Your task to perform on an android device: find which apps use the phone's location Image 0: 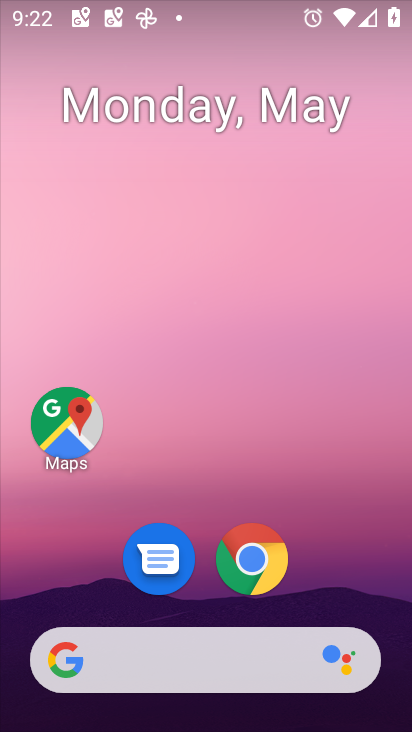
Step 0: drag from (367, 654) to (252, 104)
Your task to perform on an android device: find which apps use the phone's location Image 1: 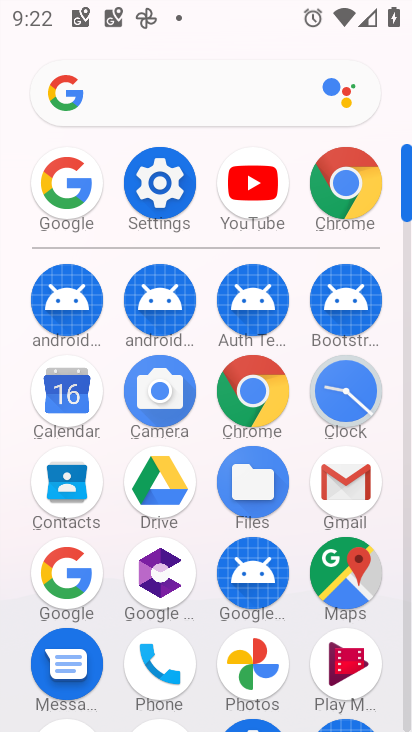
Step 1: click (166, 167)
Your task to perform on an android device: find which apps use the phone's location Image 2: 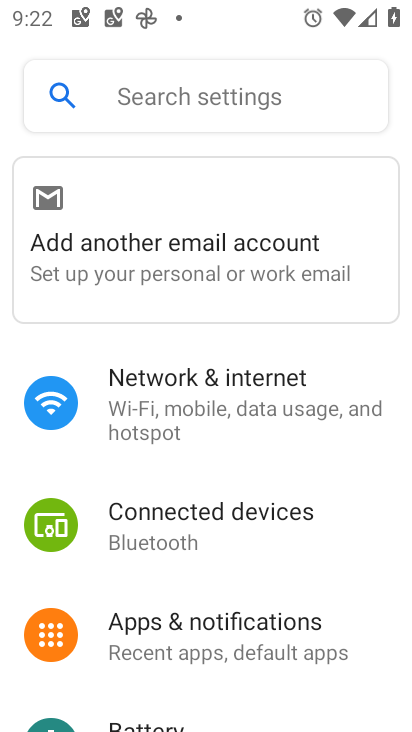
Step 2: drag from (198, 635) to (187, 271)
Your task to perform on an android device: find which apps use the phone's location Image 3: 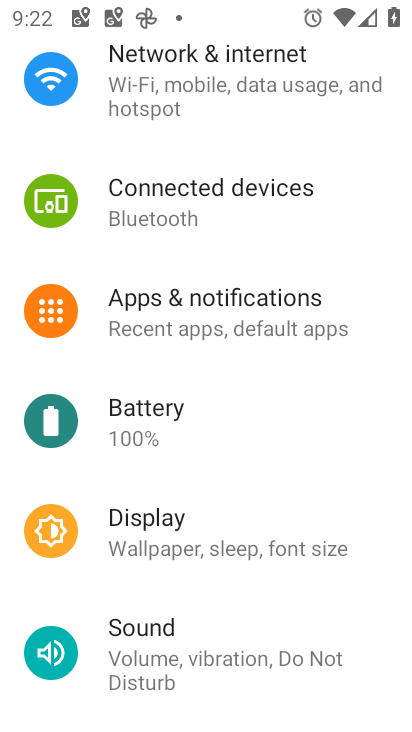
Step 3: drag from (181, 624) to (248, 178)
Your task to perform on an android device: find which apps use the phone's location Image 4: 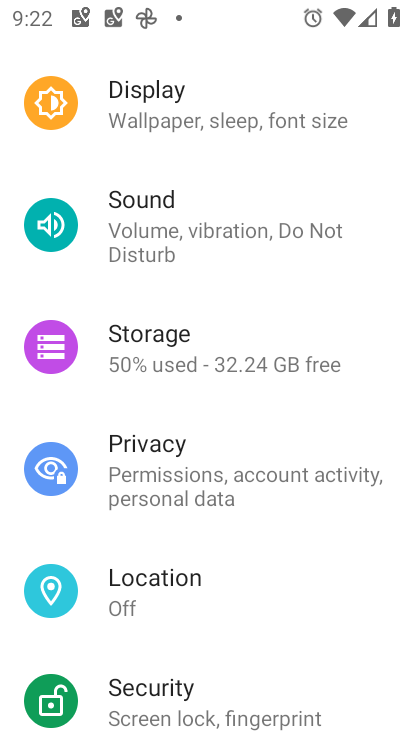
Step 4: click (146, 593)
Your task to perform on an android device: find which apps use the phone's location Image 5: 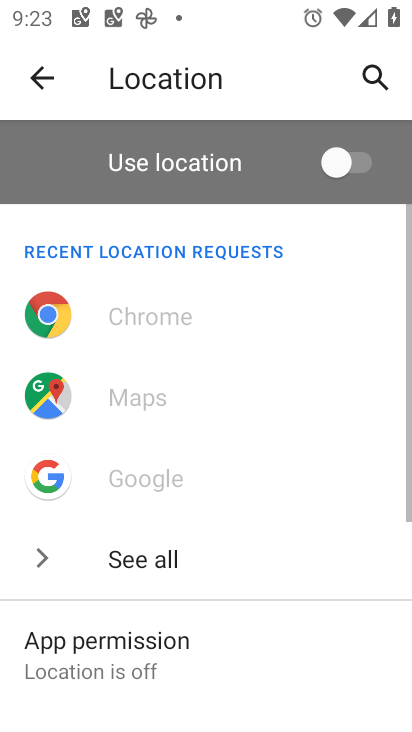
Step 5: drag from (135, 654) to (168, 170)
Your task to perform on an android device: find which apps use the phone's location Image 6: 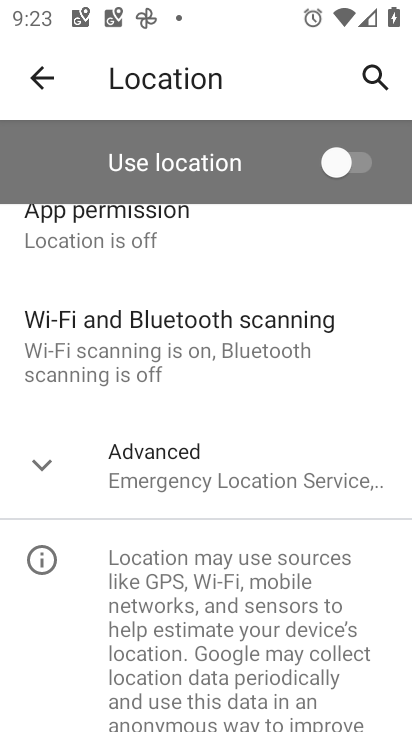
Step 6: click (64, 461)
Your task to perform on an android device: find which apps use the phone's location Image 7: 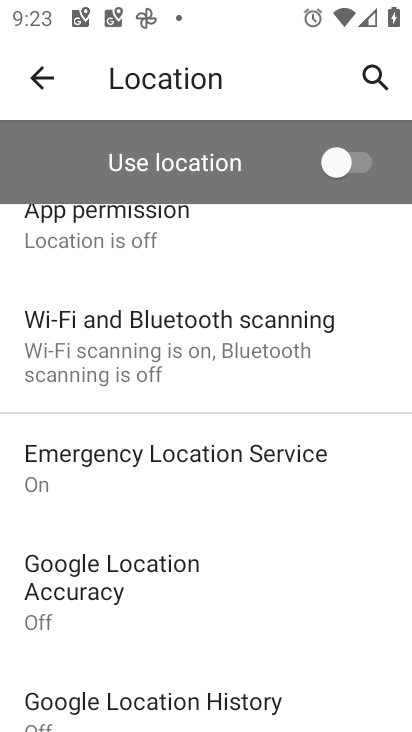
Step 7: click (198, 236)
Your task to perform on an android device: find which apps use the phone's location Image 8: 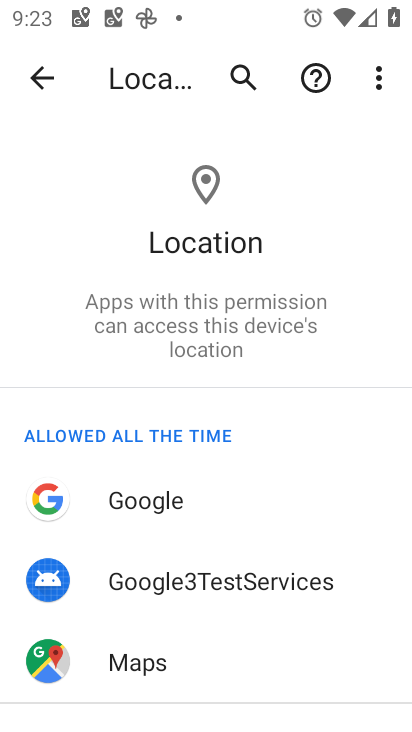
Step 8: drag from (186, 611) to (202, 156)
Your task to perform on an android device: find which apps use the phone's location Image 9: 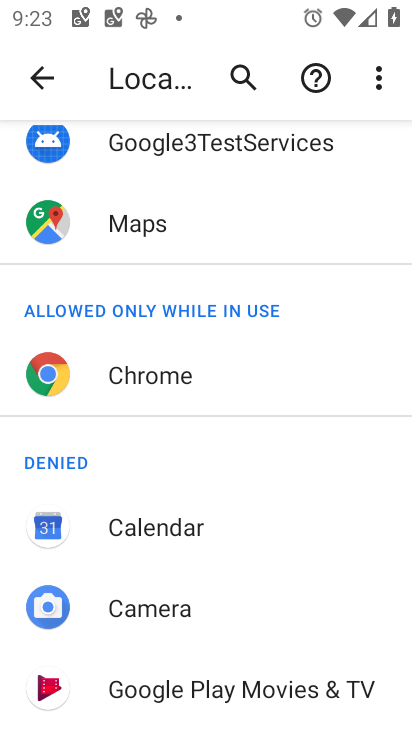
Step 9: drag from (161, 647) to (174, 184)
Your task to perform on an android device: find which apps use the phone's location Image 10: 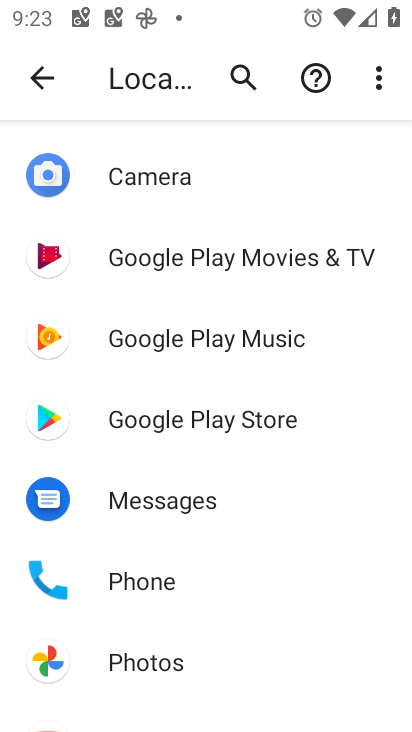
Step 10: click (124, 576)
Your task to perform on an android device: find which apps use the phone's location Image 11: 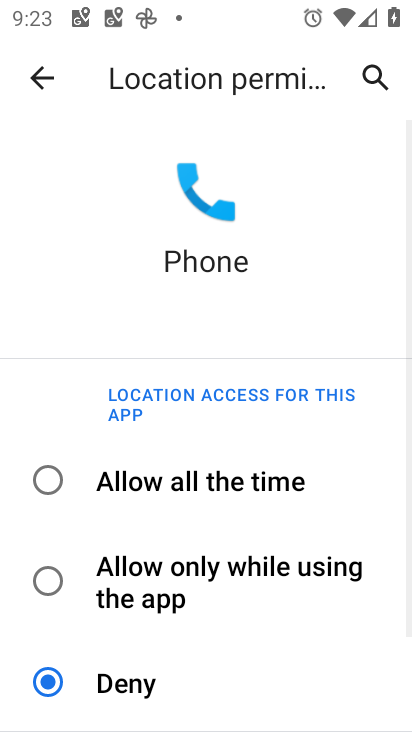
Step 11: click (213, 461)
Your task to perform on an android device: find which apps use the phone's location Image 12: 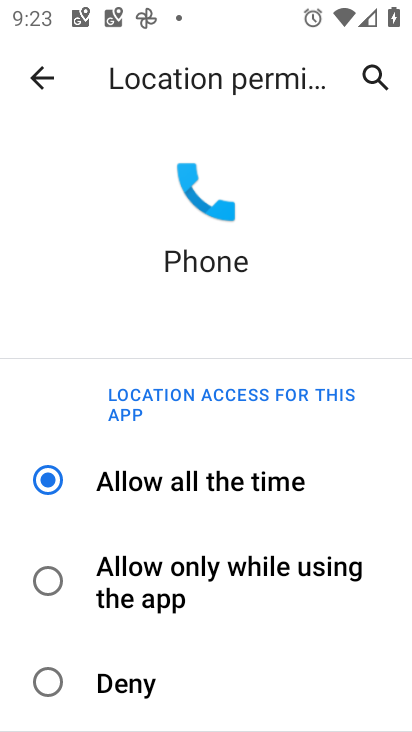
Step 12: task complete